Your task to perform on an android device: turn off data saver in the chrome app Image 0: 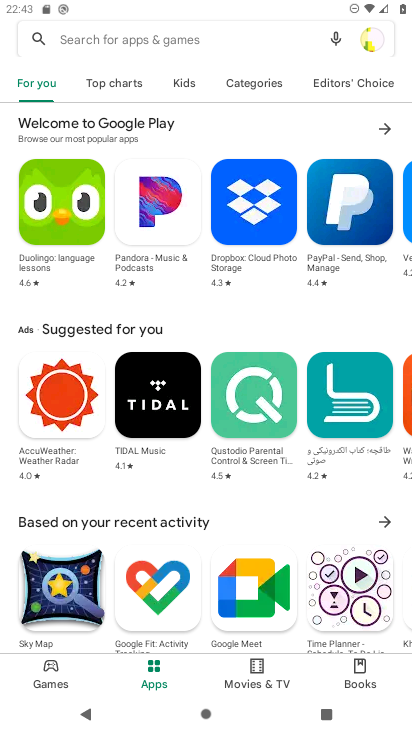
Step 0: press home button
Your task to perform on an android device: turn off data saver in the chrome app Image 1: 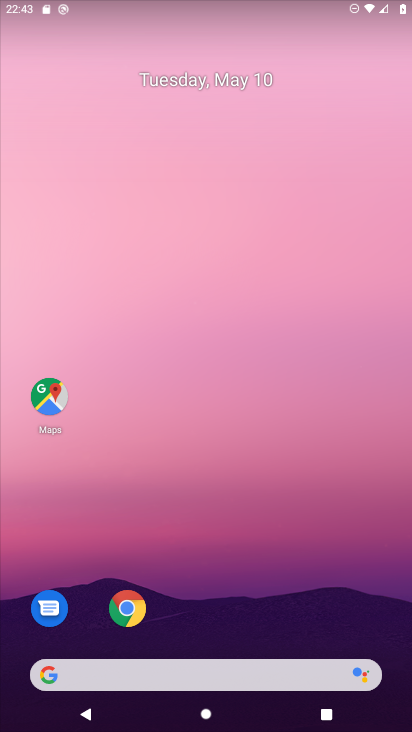
Step 1: drag from (248, 615) to (274, 255)
Your task to perform on an android device: turn off data saver in the chrome app Image 2: 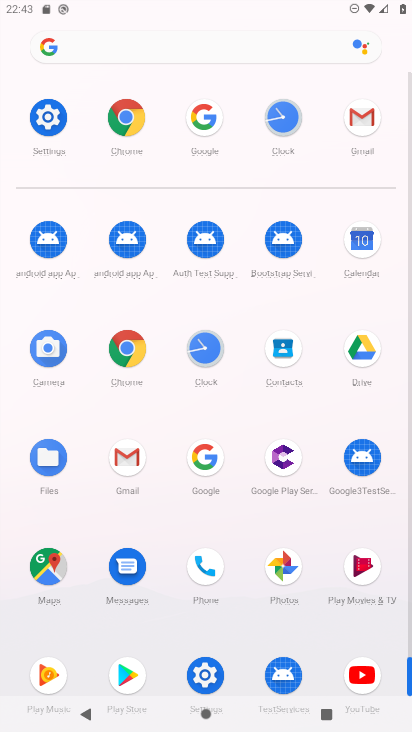
Step 2: click (129, 358)
Your task to perform on an android device: turn off data saver in the chrome app Image 3: 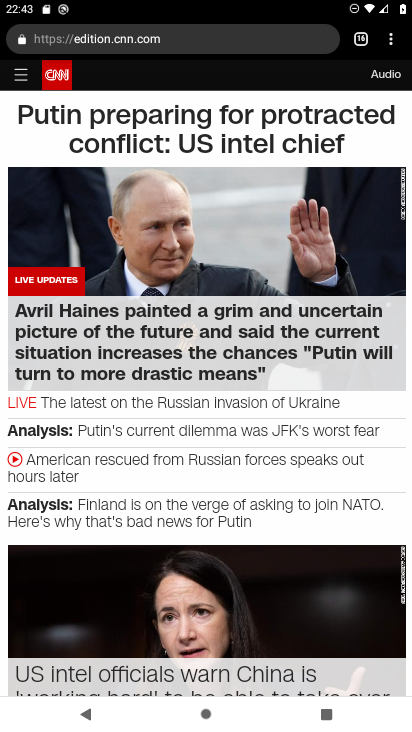
Step 3: click (385, 37)
Your task to perform on an android device: turn off data saver in the chrome app Image 4: 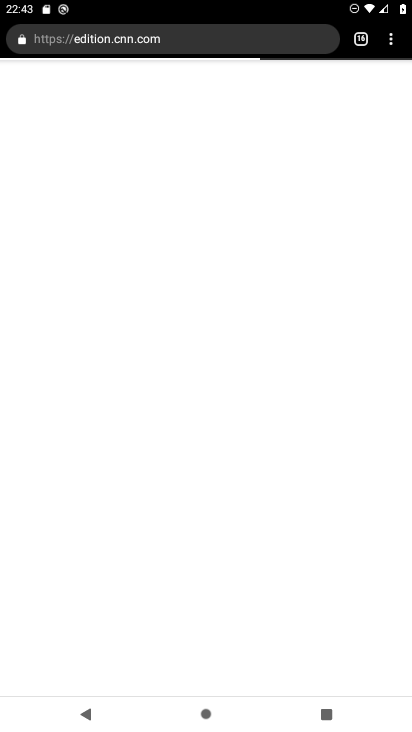
Step 4: click (377, 41)
Your task to perform on an android device: turn off data saver in the chrome app Image 5: 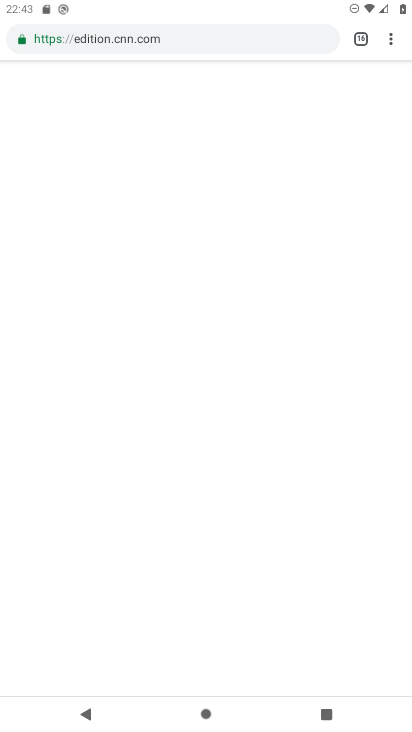
Step 5: click (384, 31)
Your task to perform on an android device: turn off data saver in the chrome app Image 6: 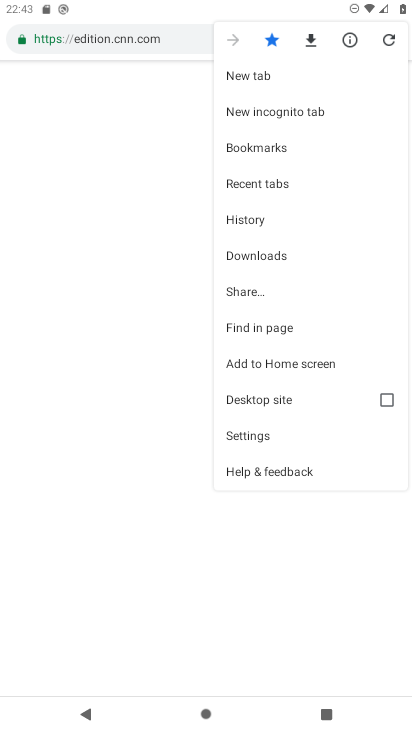
Step 6: click (277, 432)
Your task to perform on an android device: turn off data saver in the chrome app Image 7: 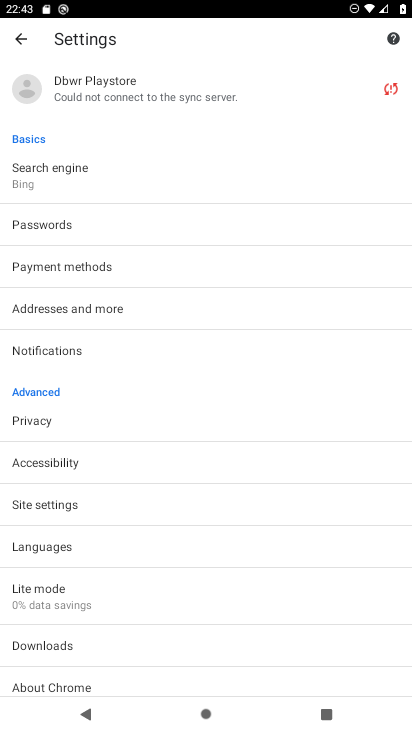
Step 7: click (64, 591)
Your task to perform on an android device: turn off data saver in the chrome app Image 8: 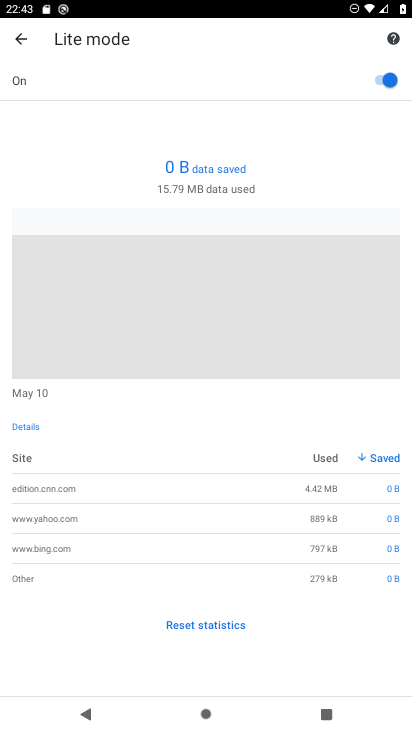
Step 8: click (393, 80)
Your task to perform on an android device: turn off data saver in the chrome app Image 9: 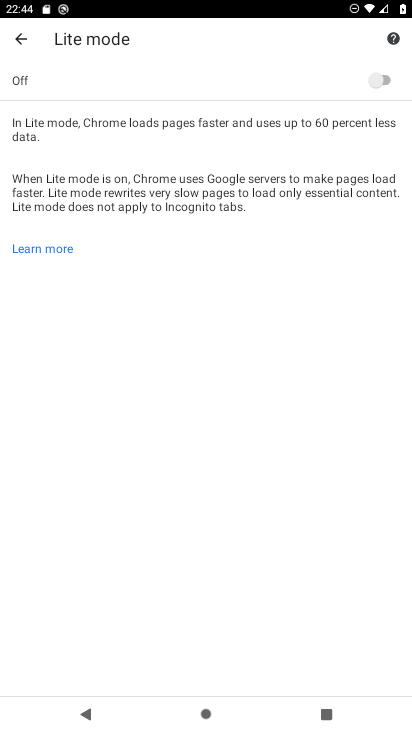
Step 9: task complete